Your task to perform on an android device: Open Yahoo.com Image 0: 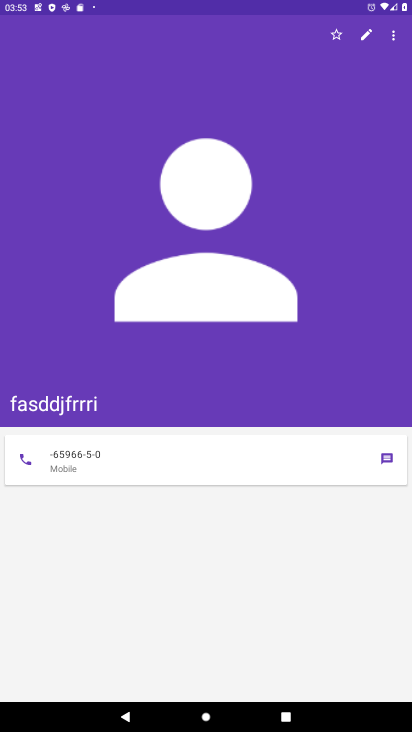
Step 0: press home button
Your task to perform on an android device: Open Yahoo.com Image 1: 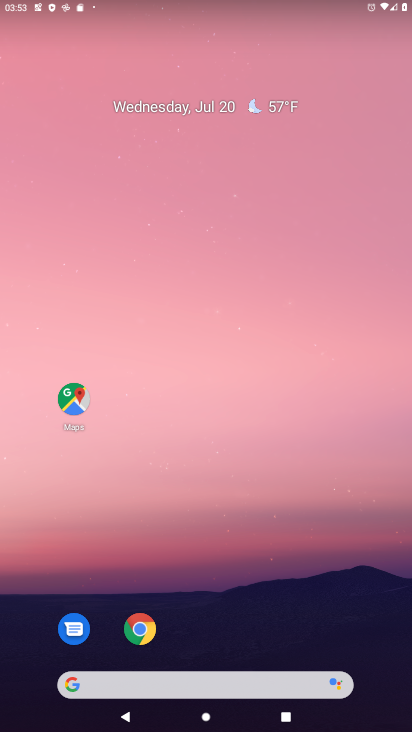
Step 1: click (138, 629)
Your task to perform on an android device: Open Yahoo.com Image 2: 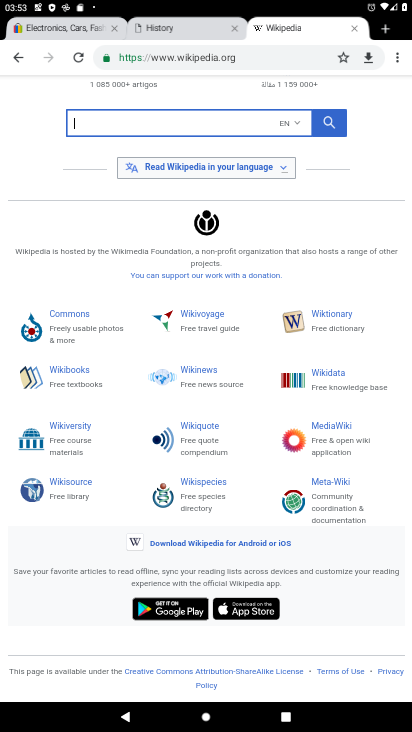
Step 2: click (272, 55)
Your task to perform on an android device: Open Yahoo.com Image 3: 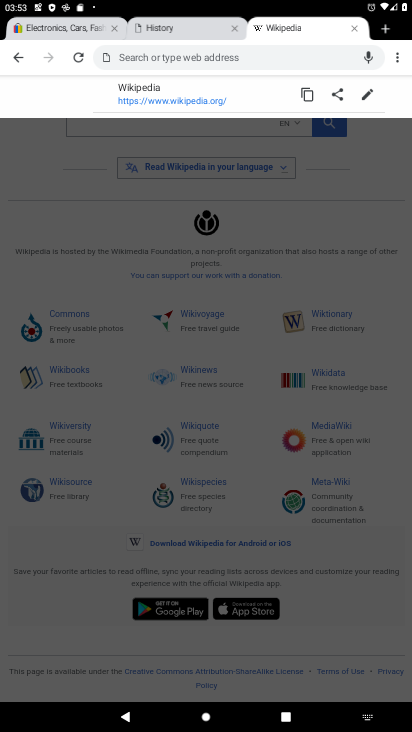
Step 3: type "yahoo.com"
Your task to perform on an android device: Open Yahoo.com Image 4: 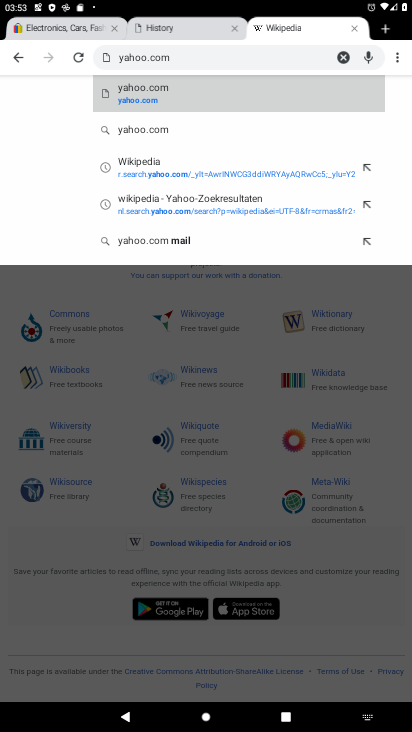
Step 4: click (144, 88)
Your task to perform on an android device: Open Yahoo.com Image 5: 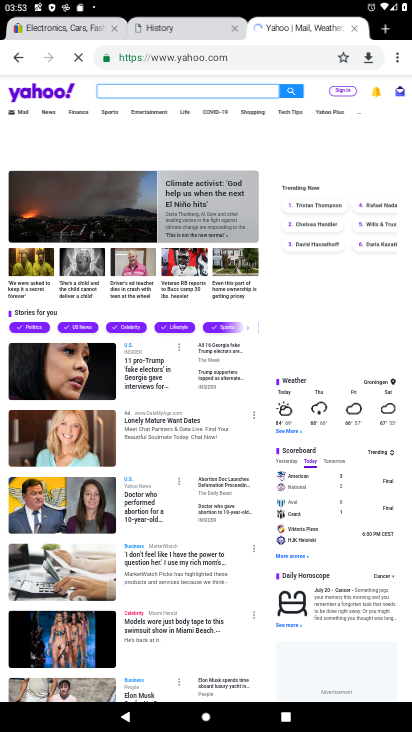
Step 5: task complete